Your task to perform on an android device: change notifications settings Image 0: 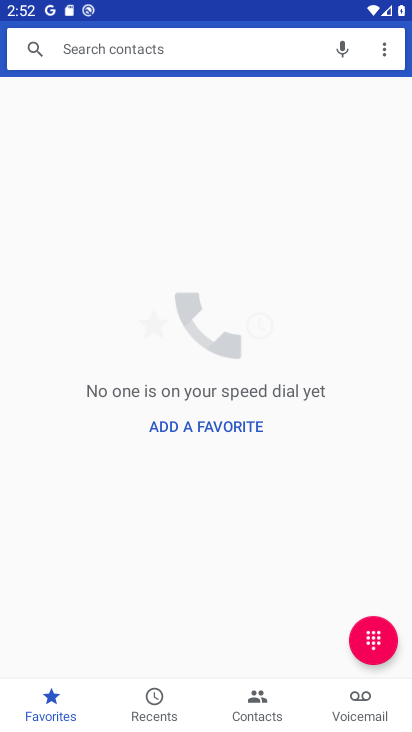
Step 0: click (408, 512)
Your task to perform on an android device: change notifications settings Image 1: 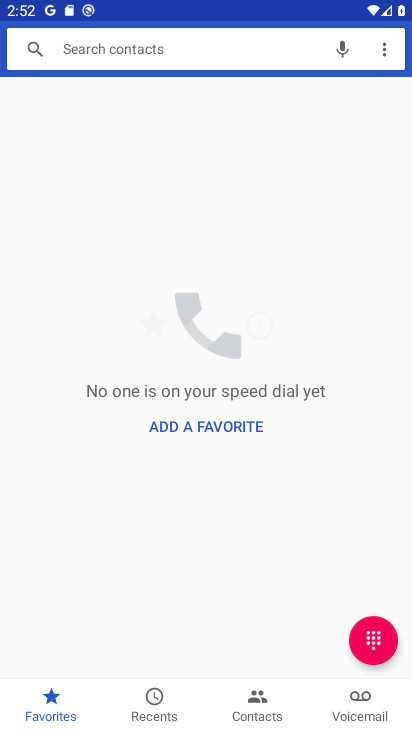
Step 1: press back button
Your task to perform on an android device: change notifications settings Image 2: 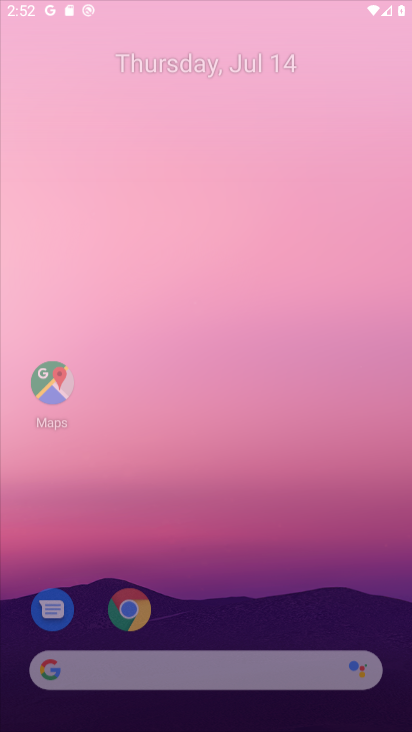
Step 2: press back button
Your task to perform on an android device: change notifications settings Image 3: 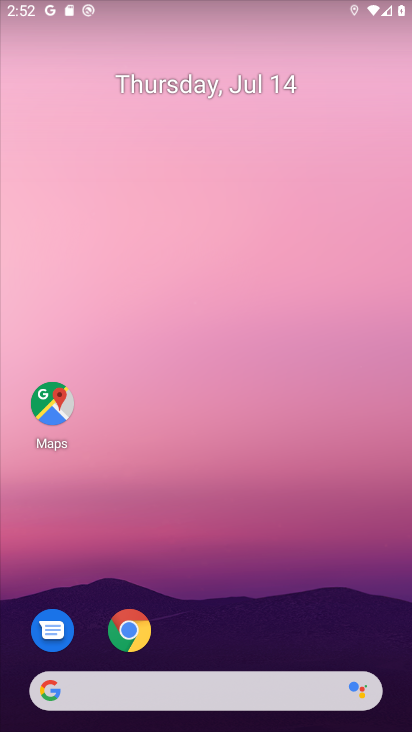
Step 3: drag from (252, 567) to (108, 132)
Your task to perform on an android device: change notifications settings Image 4: 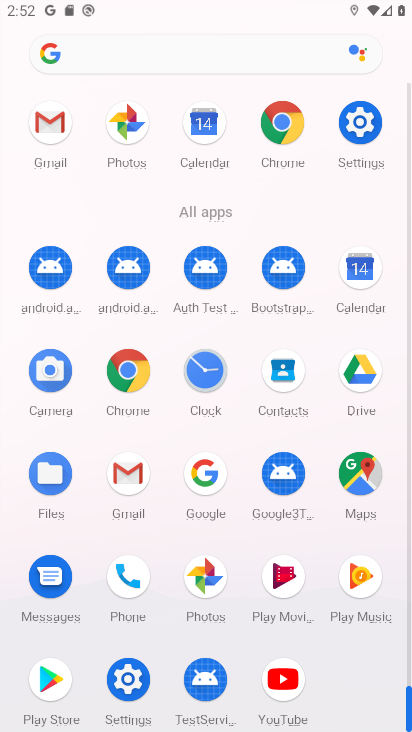
Step 4: click (358, 120)
Your task to perform on an android device: change notifications settings Image 5: 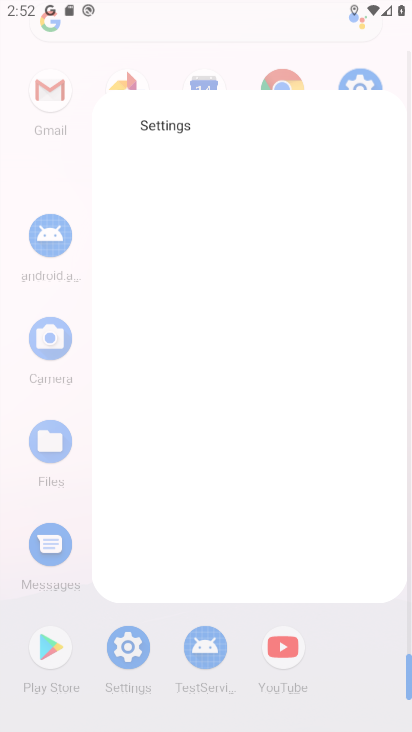
Step 5: click (359, 119)
Your task to perform on an android device: change notifications settings Image 6: 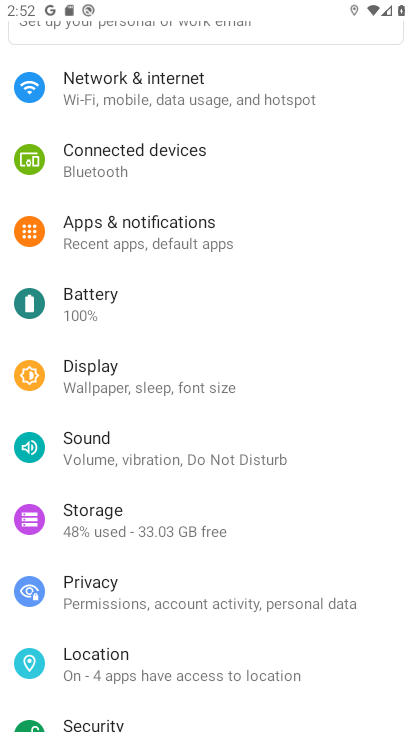
Step 6: click (107, 238)
Your task to perform on an android device: change notifications settings Image 7: 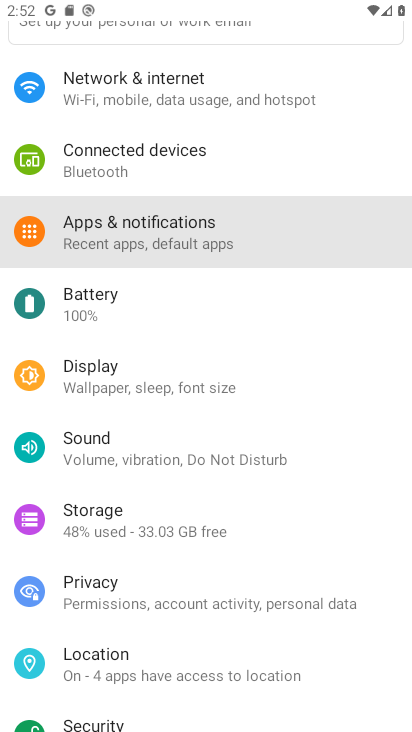
Step 7: click (107, 238)
Your task to perform on an android device: change notifications settings Image 8: 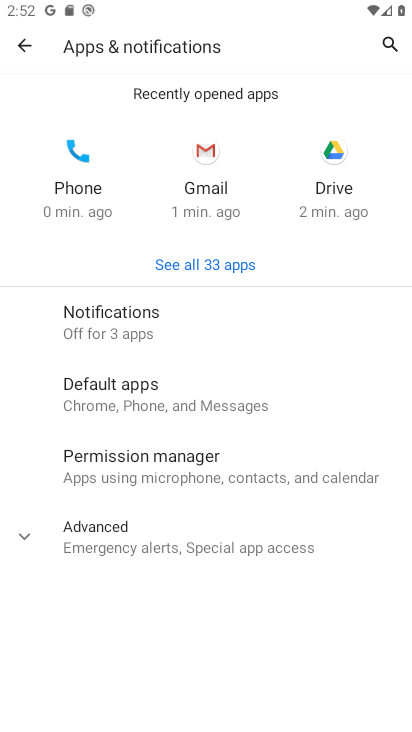
Step 8: click (97, 314)
Your task to perform on an android device: change notifications settings Image 9: 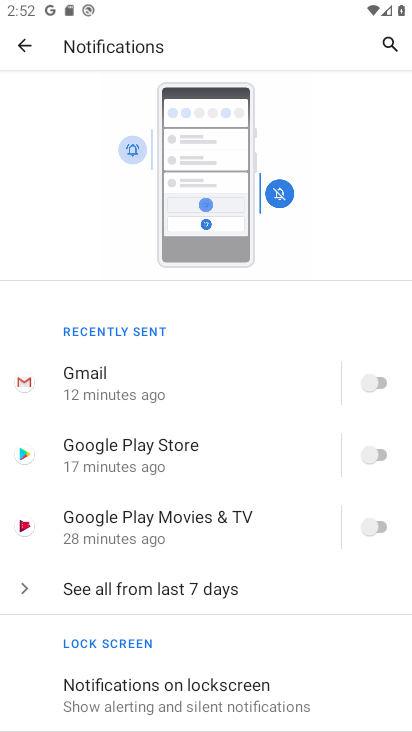
Step 9: click (373, 381)
Your task to perform on an android device: change notifications settings Image 10: 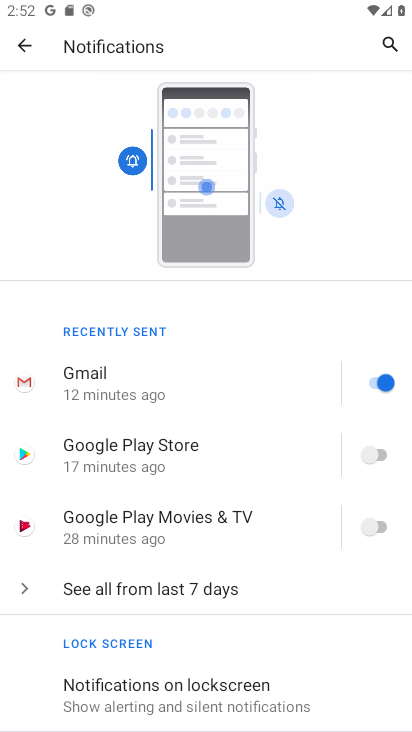
Step 10: click (368, 454)
Your task to perform on an android device: change notifications settings Image 11: 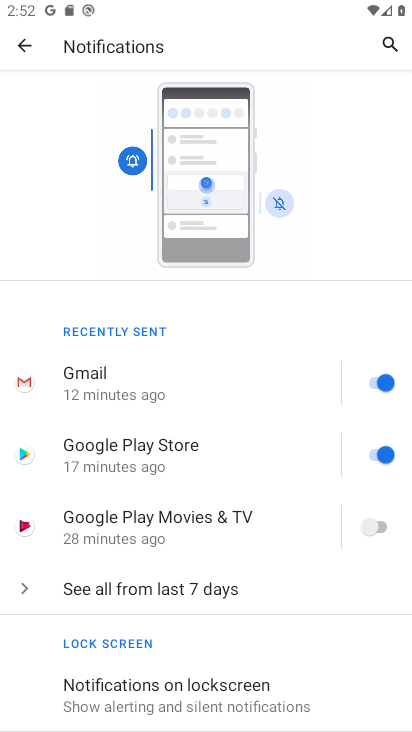
Step 11: click (373, 526)
Your task to perform on an android device: change notifications settings Image 12: 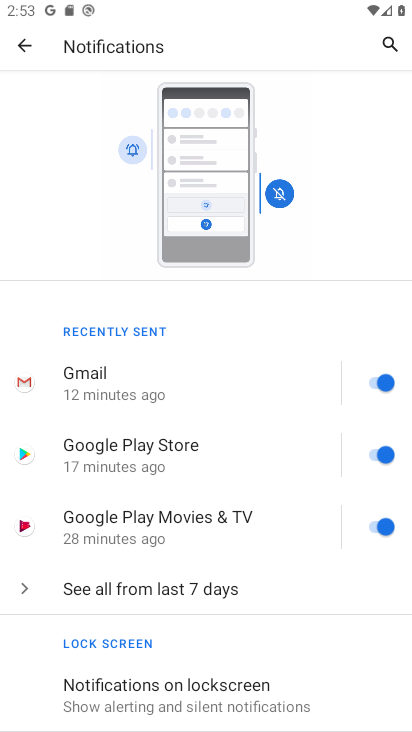
Step 12: task complete